Your task to perform on an android device: Go to battery settings Image 0: 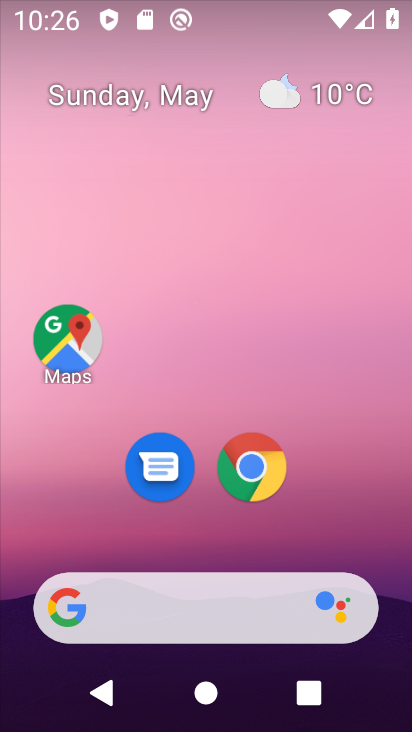
Step 0: drag from (345, 555) to (272, 0)
Your task to perform on an android device: Go to battery settings Image 1: 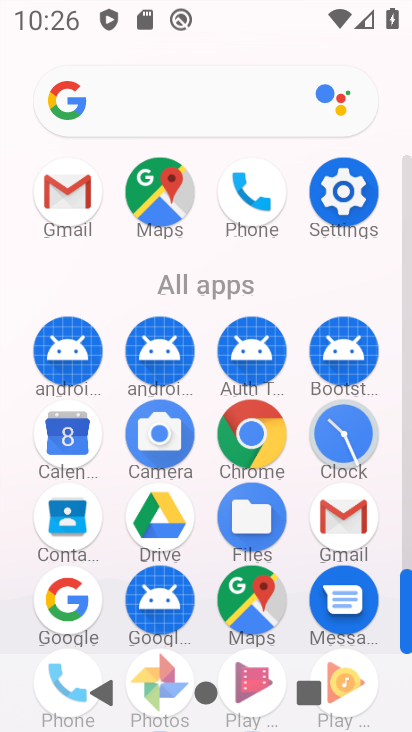
Step 1: click (359, 169)
Your task to perform on an android device: Go to battery settings Image 2: 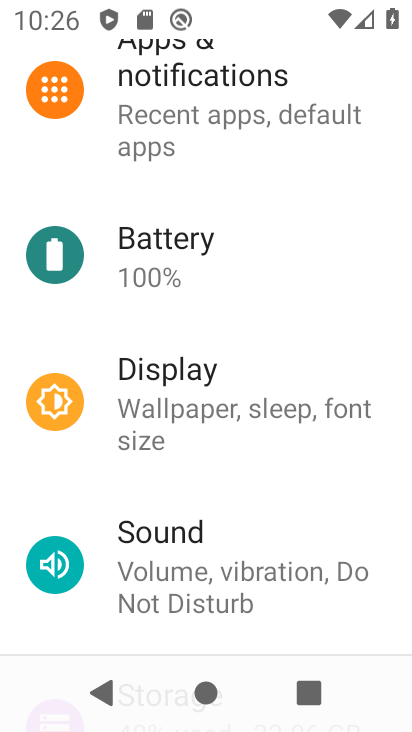
Step 2: click (266, 256)
Your task to perform on an android device: Go to battery settings Image 3: 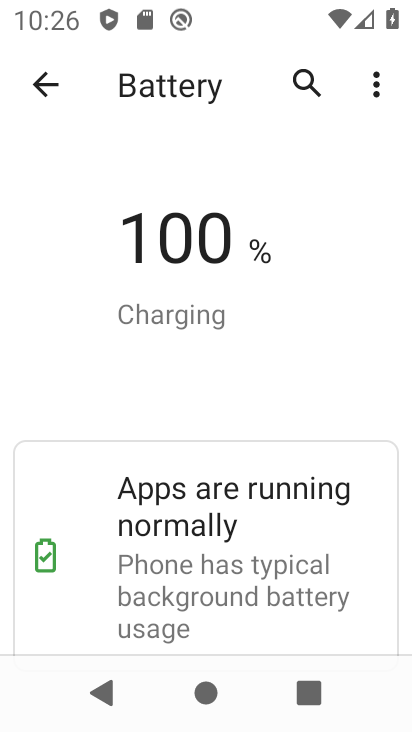
Step 3: task complete